Your task to perform on an android device: turn pop-ups on in chrome Image 0: 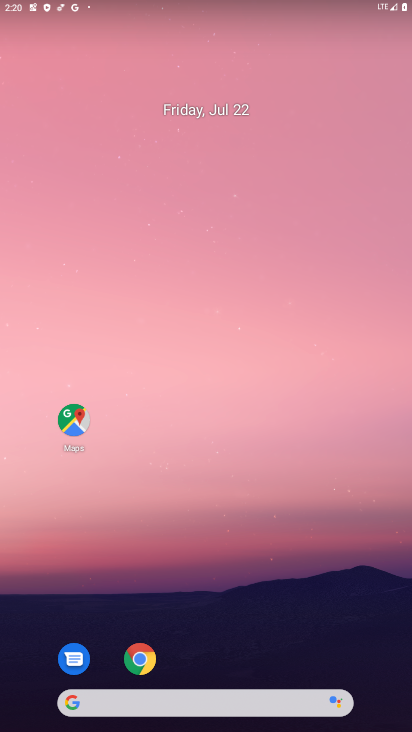
Step 0: click (139, 661)
Your task to perform on an android device: turn pop-ups on in chrome Image 1: 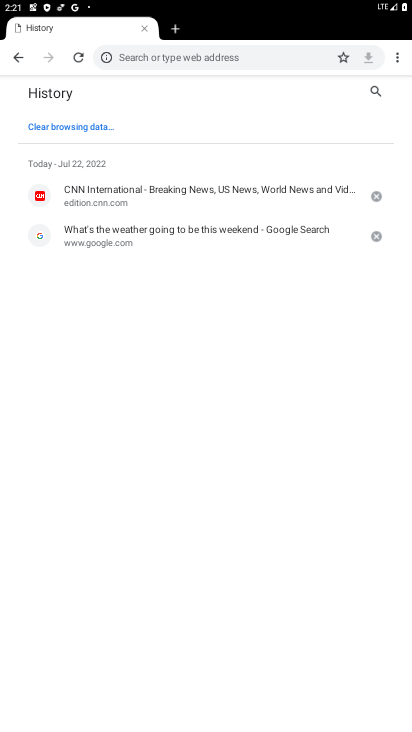
Step 1: click (397, 57)
Your task to perform on an android device: turn pop-ups on in chrome Image 2: 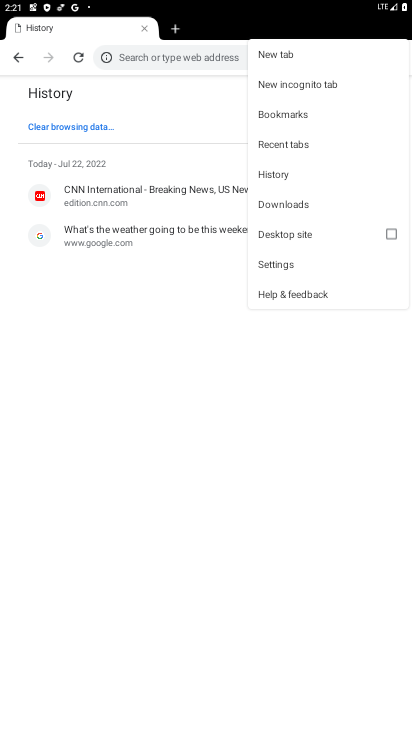
Step 2: click (284, 265)
Your task to perform on an android device: turn pop-ups on in chrome Image 3: 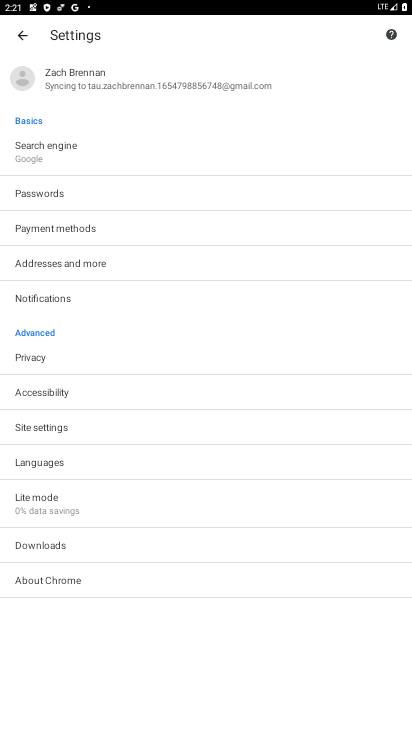
Step 3: click (52, 425)
Your task to perform on an android device: turn pop-ups on in chrome Image 4: 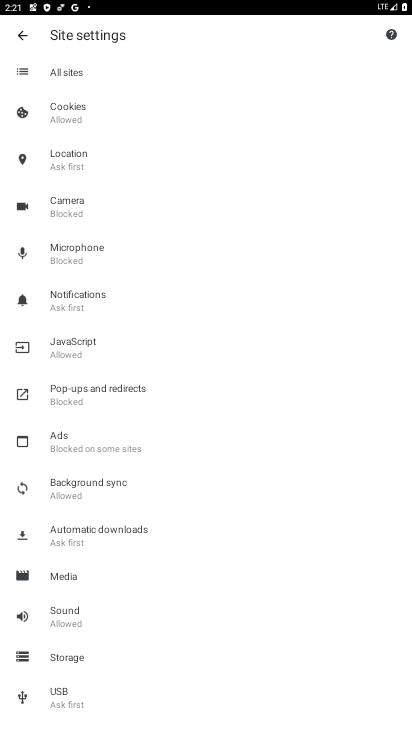
Step 4: click (84, 402)
Your task to perform on an android device: turn pop-ups on in chrome Image 5: 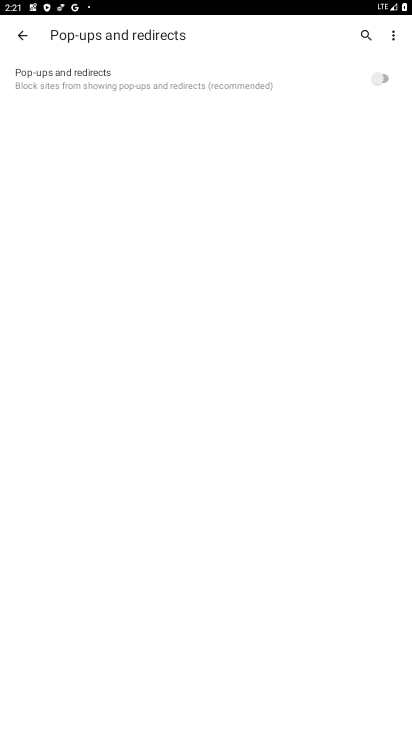
Step 5: click (386, 83)
Your task to perform on an android device: turn pop-ups on in chrome Image 6: 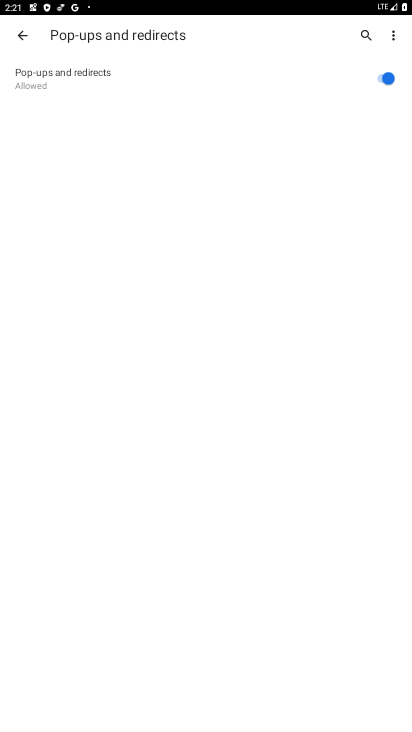
Step 6: task complete